Your task to perform on an android device: Show me productivity apps on the Play Store Image 0: 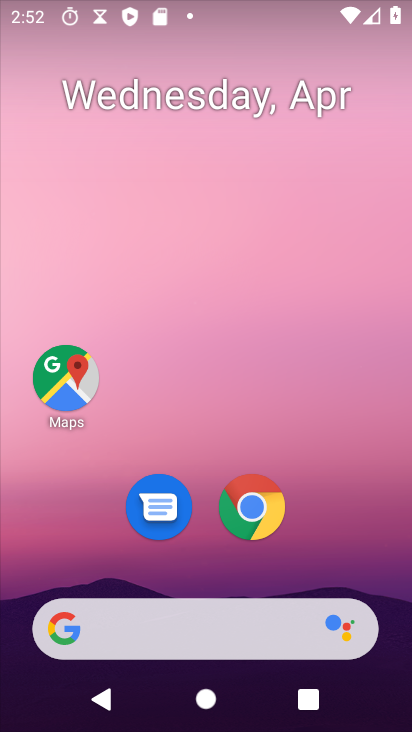
Step 0: press home button
Your task to perform on an android device: Show me productivity apps on the Play Store Image 1: 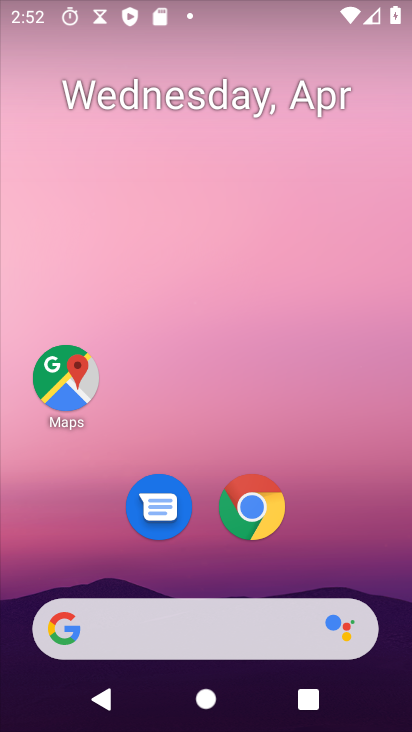
Step 1: drag from (337, 512) to (46, 66)
Your task to perform on an android device: Show me productivity apps on the Play Store Image 2: 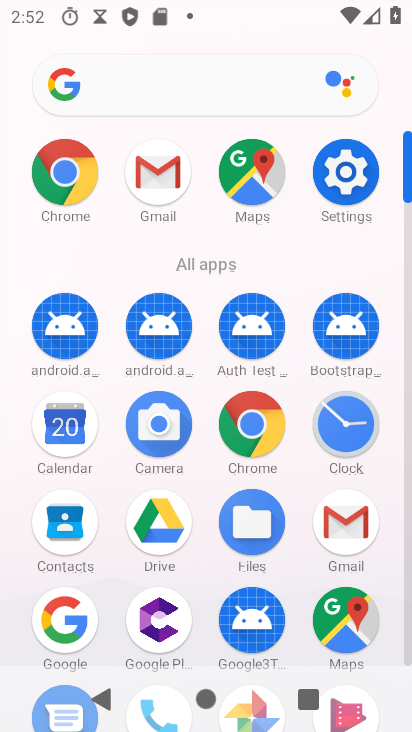
Step 2: drag from (201, 611) to (190, 219)
Your task to perform on an android device: Show me productivity apps on the Play Store Image 3: 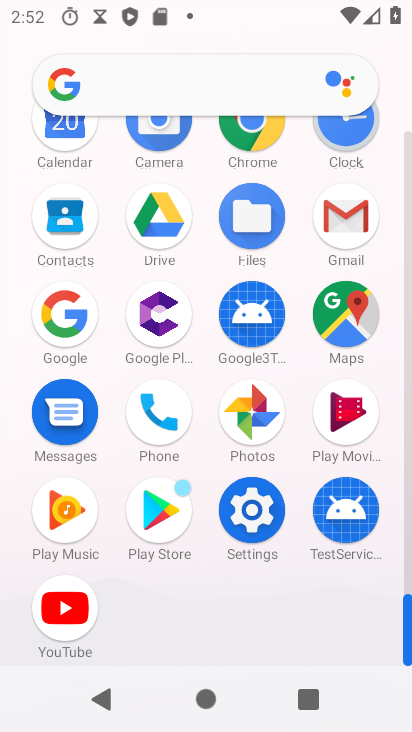
Step 3: click (159, 518)
Your task to perform on an android device: Show me productivity apps on the Play Store Image 4: 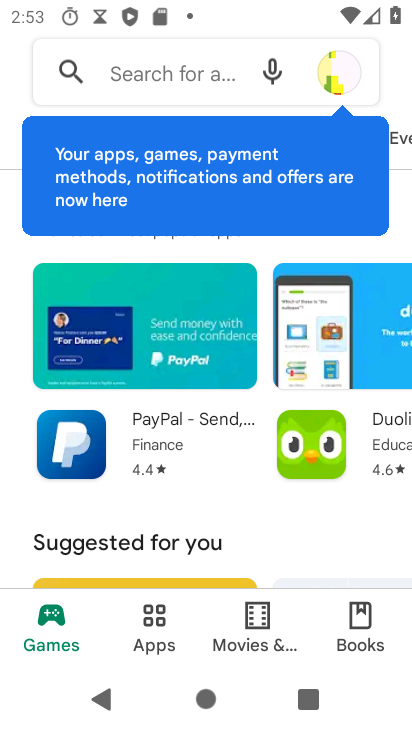
Step 4: click (161, 623)
Your task to perform on an android device: Show me productivity apps on the Play Store Image 5: 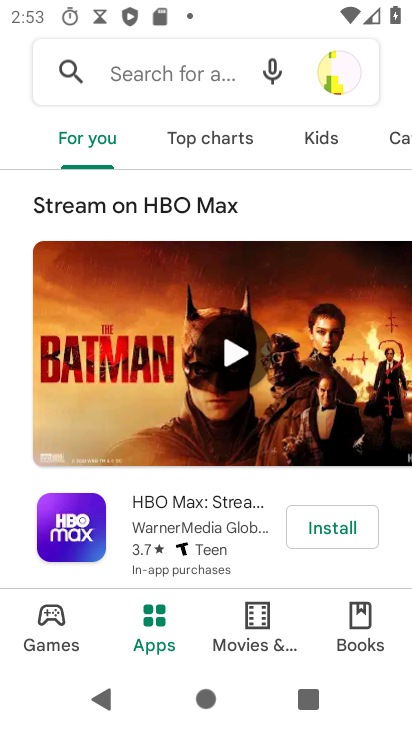
Step 5: drag from (378, 138) to (87, 140)
Your task to perform on an android device: Show me productivity apps on the Play Store Image 6: 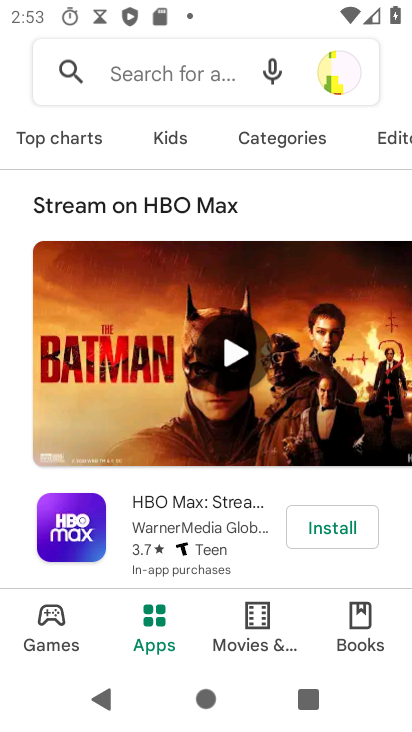
Step 6: click (264, 143)
Your task to perform on an android device: Show me productivity apps on the Play Store Image 7: 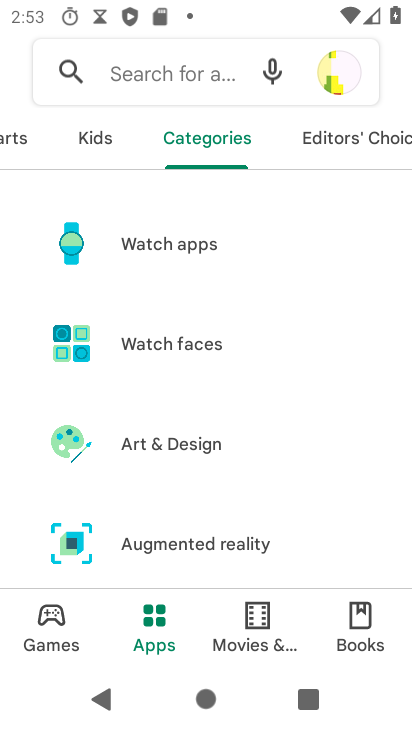
Step 7: drag from (167, 548) to (143, 167)
Your task to perform on an android device: Show me productivity apps on the Play Store Image 8: 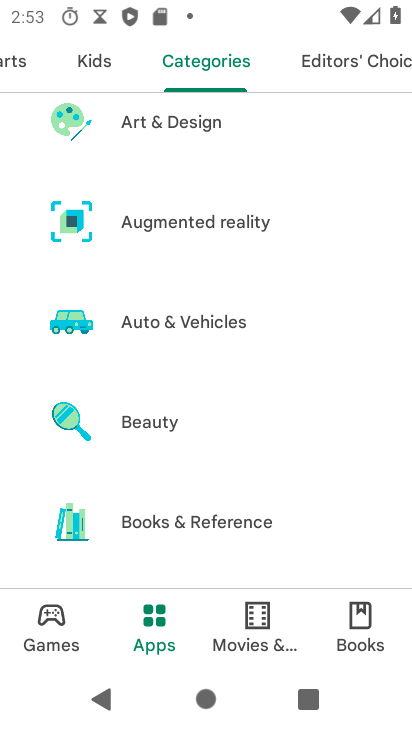
Step 8: drag from (154, 523) to (150, 241)
Your task to perform on an android device: Show me productivity apps on the Play Store Image 9: 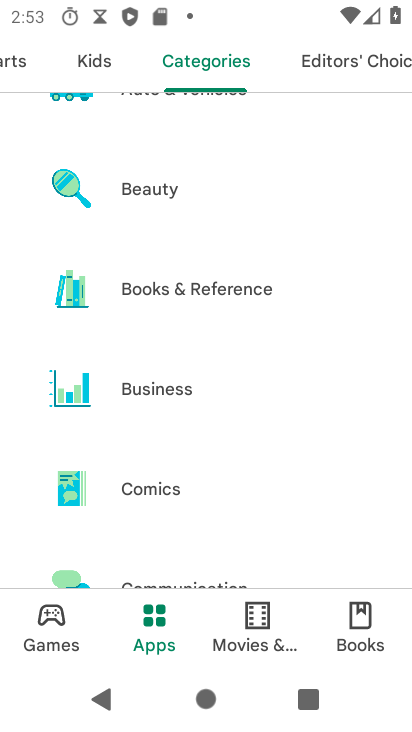
Step 9: drag from (164, 559) to (139, 159)
Your task to perform on an android device: Show me productivity apps on the Play Store Image 10: 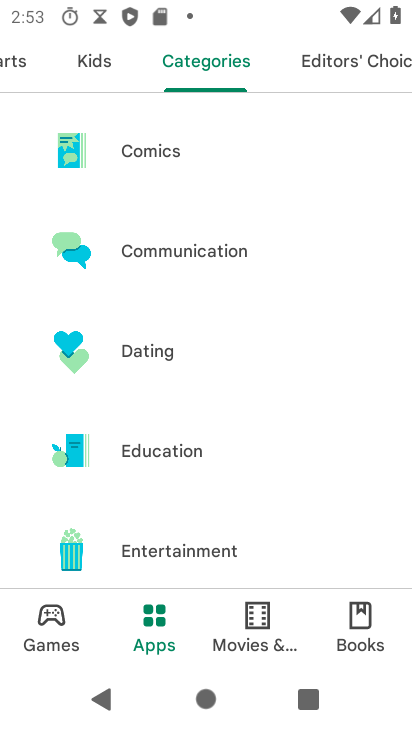
Step 10: drag from (197, 514) to (193, 193)
Your task to perform on an android device: Show me productivity apps on the Play Store Image 11: 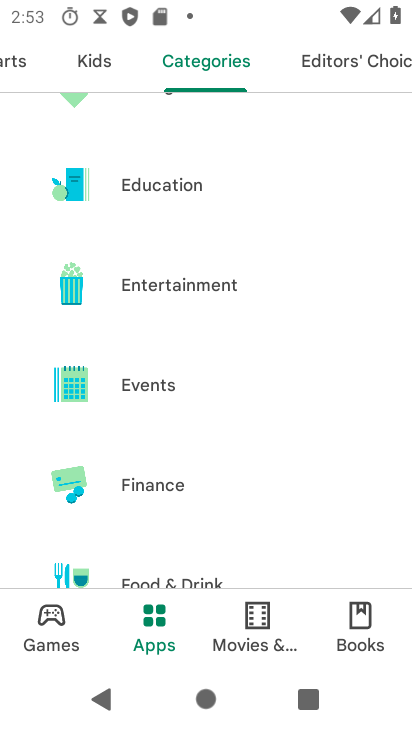
Step 11: drag from (175, 548) to (154, 185)
Your task to perform on an android device: Show me productivity apps on the Play Store Image 12: 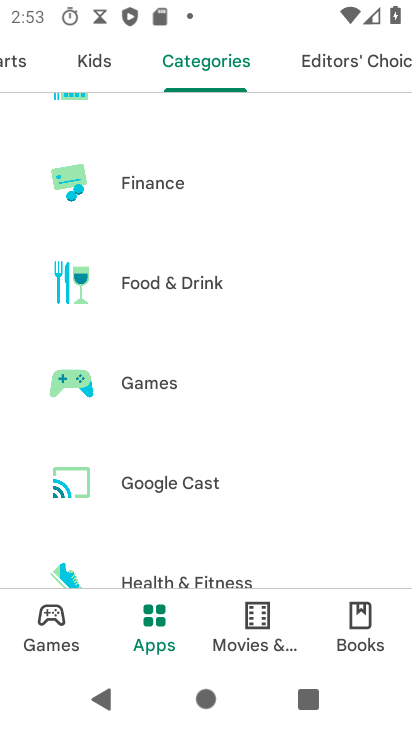
Step 12: drag from (188, 549) to (158, 211)
Your task to perform on an android device: Show me productivity apps on the Play Store Image 13: 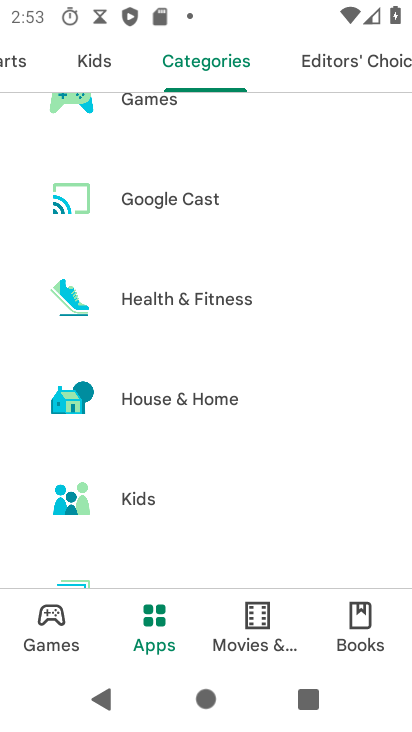
Step 13: drag from (180, 562) to (139, 156)
Your task to perform on an android device: Show me productivity apps on the Play Store Image 14: 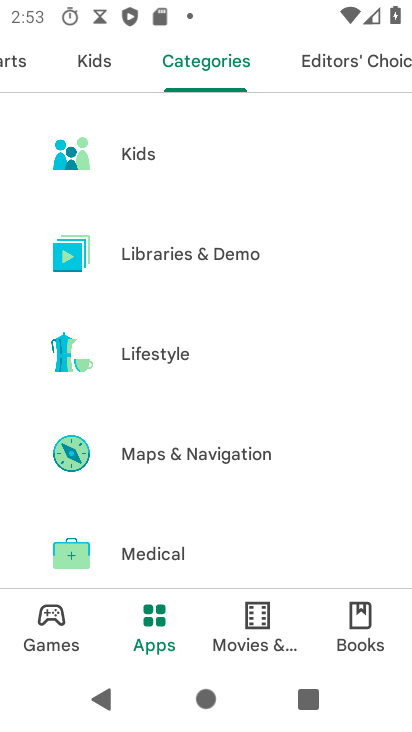
Step 14: drag from (127, 533) to (132, 137)
Your task to perform on an android device: Show me productivity apps on the Play Store Image 15: 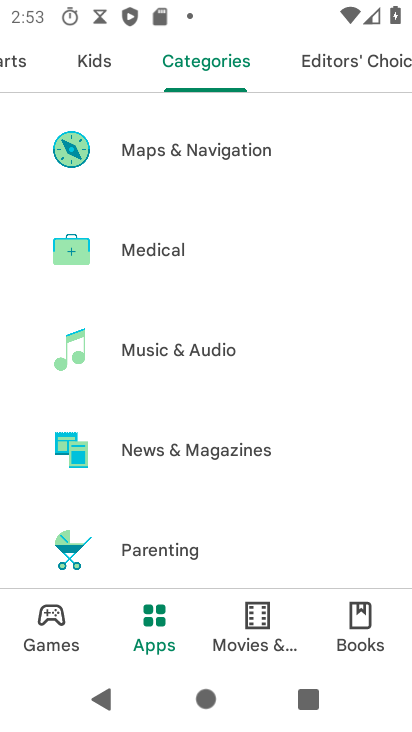
Step 15: drag from (125, 555) to (136, 190)
Your task to perform on an android device: Show me productivity apps on the Play Store Image 16: 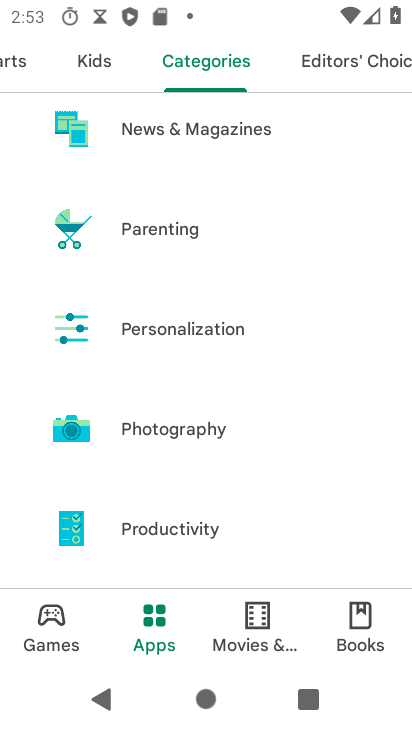
Step 16: click (158, 530)
Your task to perform on an android device: Show me productivity apps on the Play Store Image 17: 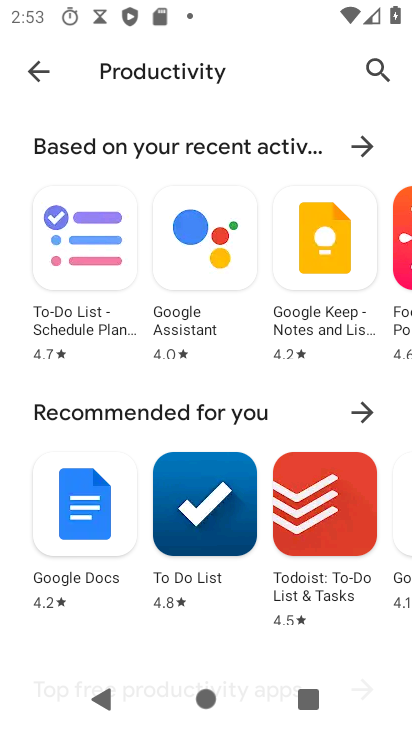
Step 17: task complete